Your task to perform on an android device: choose inbox layout in the gmail app Image 0: 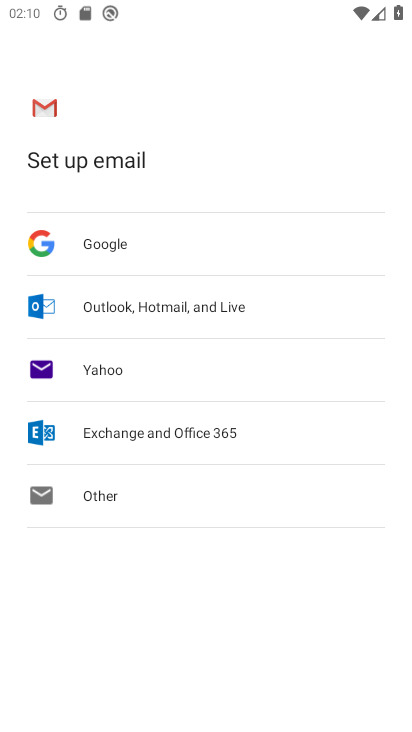
Step 0: press home button
Your task to perform on an android device: choose inbox layout in the gmail app Image 1: 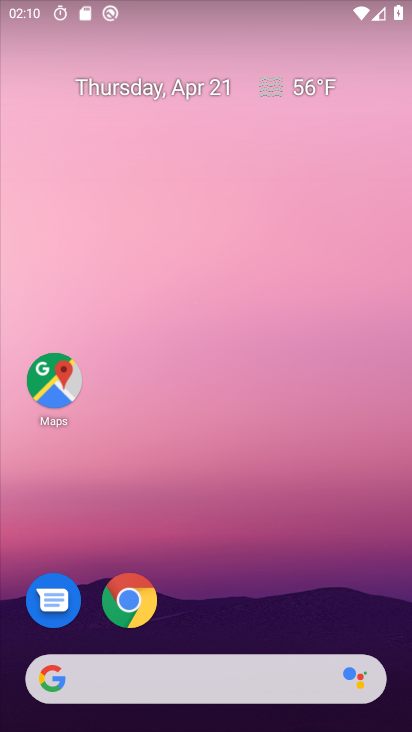
Step 1: drag from (266, 577) to (312, 146)
Your task to perform on an android device: choose inbox layout in the gmail app Image 2: 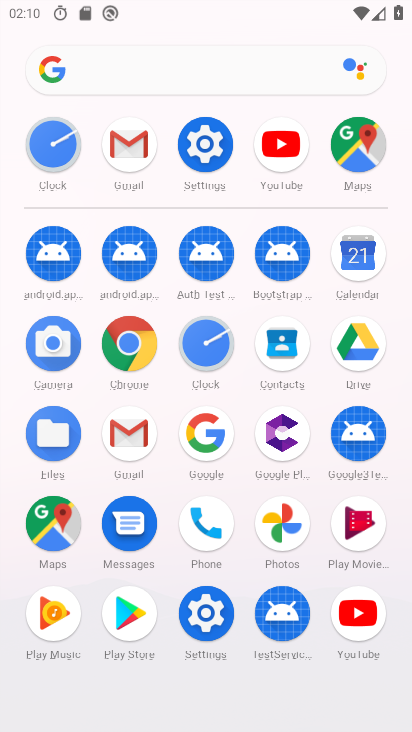
Step 2: click (132, 150)
Your task to perform on an android device: choose inbox layout in the gmail app Image 3: 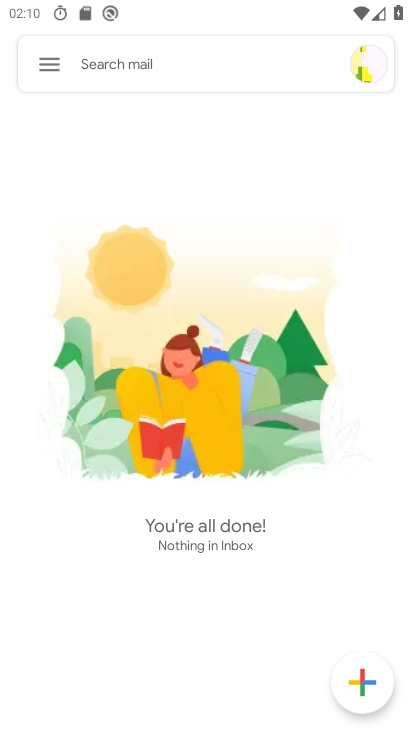
Step 3: click (51, 62)
Your task to perform on an android device: choose inbox layout in the gmail app Image 4: 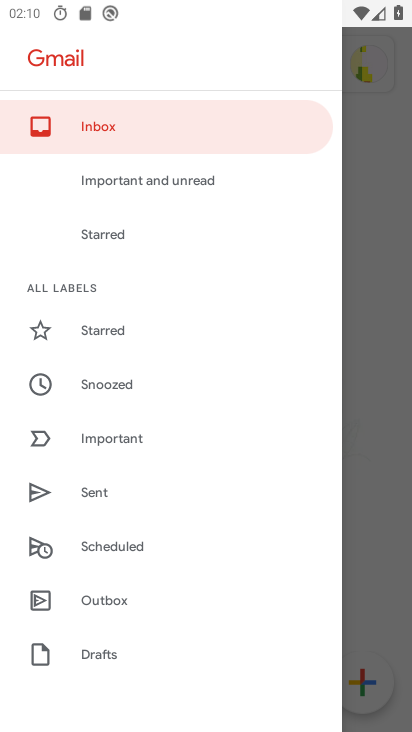
Step 4: drag from (173, 637) to (257, 118)
Your task to perform on an android device: choose inbox layout in the gmail app Image 5: 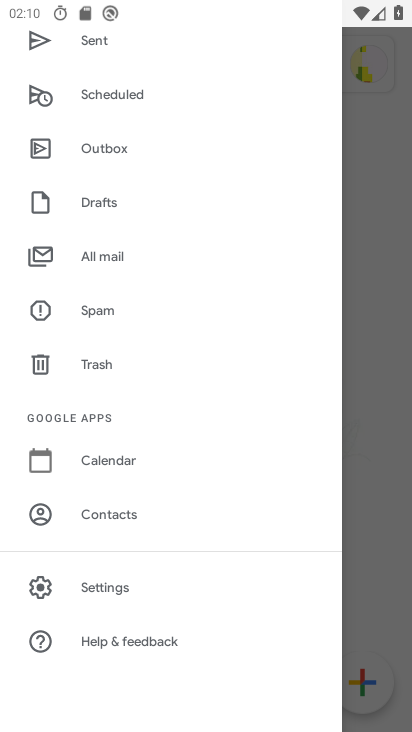
Step 5: click (100, 588)
Your task to perform on an android device: choose inbox layout in the gmail app Image 6: 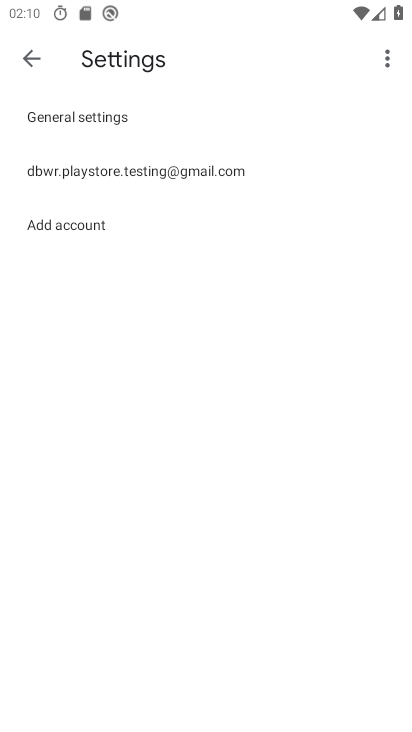
Step 6: click (224, 162)
Your task to perform on an android device: choose inbox layout in the gmail app Image 7: 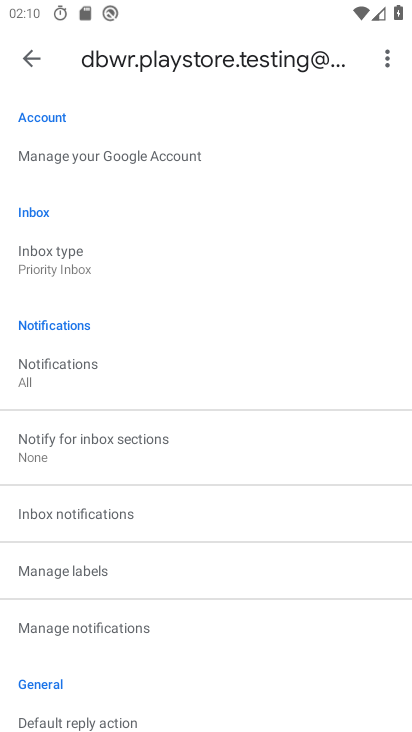
Step 7: click (80, 248)
Your task to perform on an android device: choose inbox layout in the gmail app Image 8: 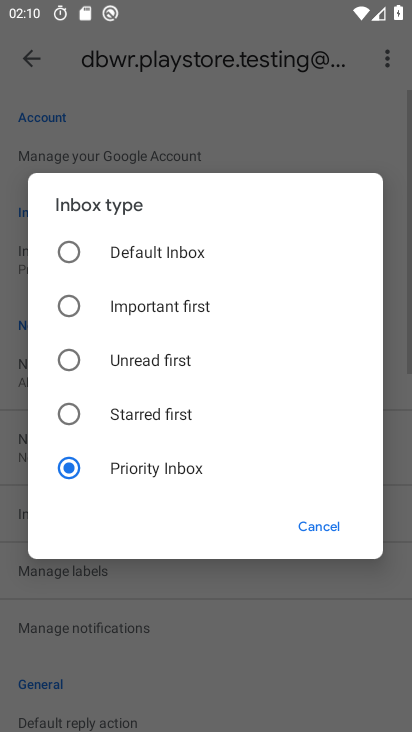
Step 8: click (80, 247)
Your task to perform on an android device: choose inbox layout in the gmail app Image 9: 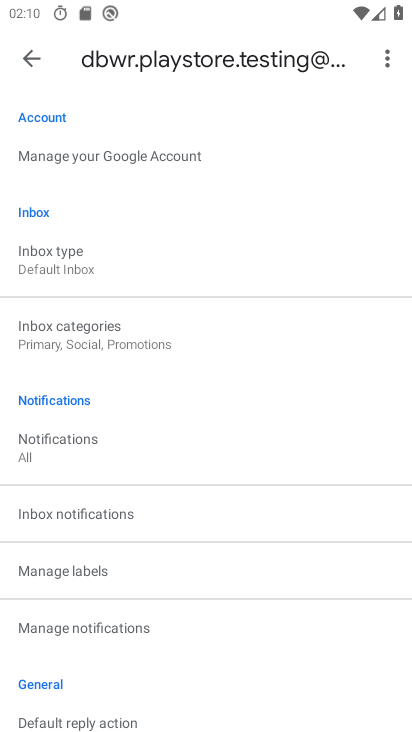
Step 9: task complete